Your task to perform on an android device: What's the weather like in New York? Image 0: 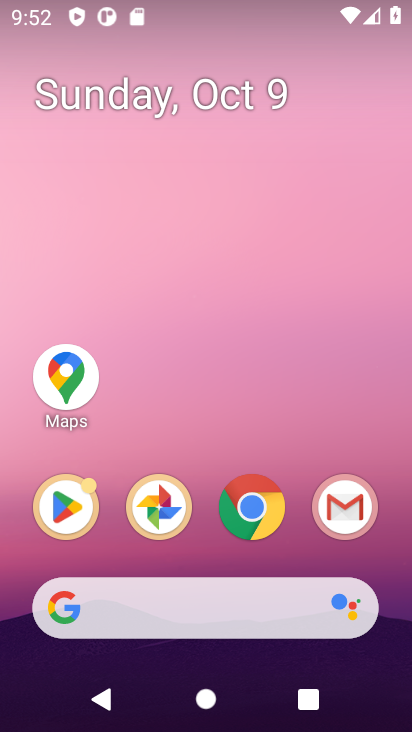
Step 0: drag from (199, 559) to (160, 37)
Your task to perform on an android device: What's the weather like in New York? Image 1: 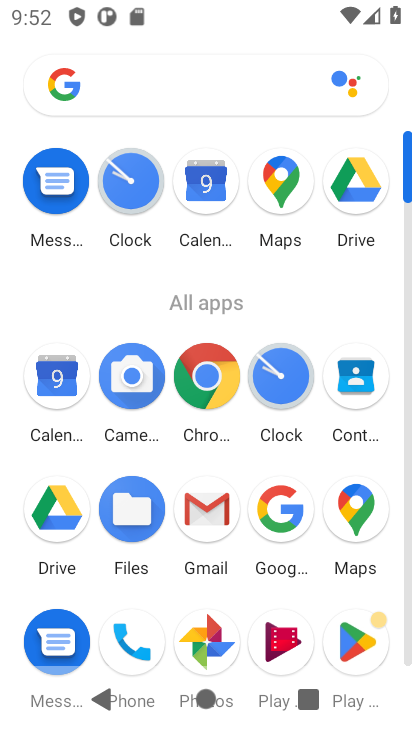
Step 1: click (205, 379)
Your task to perform on an android device: What's the weather like in New York? Image 2: 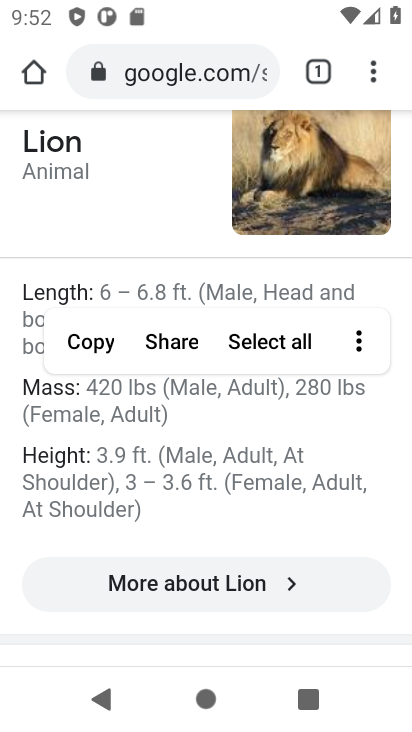
Step 2: click (148, 61)
Your task to perform on an android device: What's the weather like in New York? Image 3: 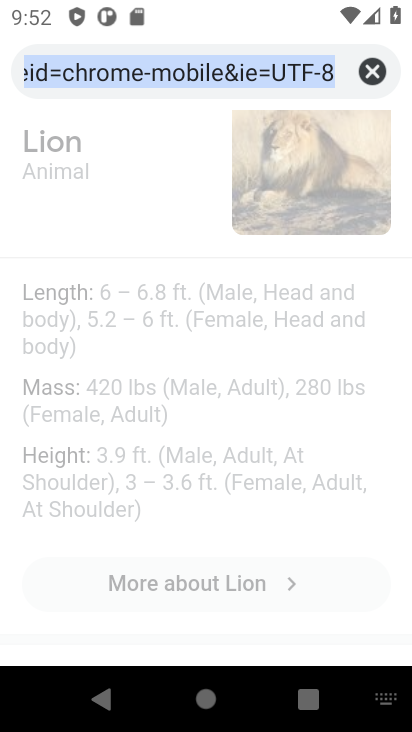
Step 3: type "What's the weather like in New York?"
Your task to perform on an android device: What's the weather like in New York? Image 4: 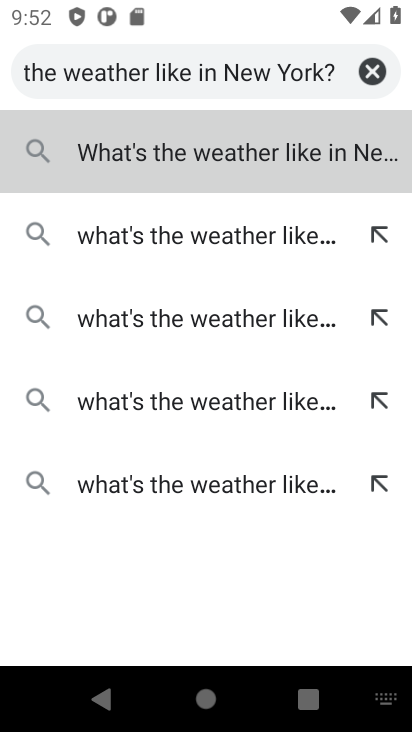
Step 4: press enter
Your task to perform on an android device: What's the weather like in New York? Image 5: 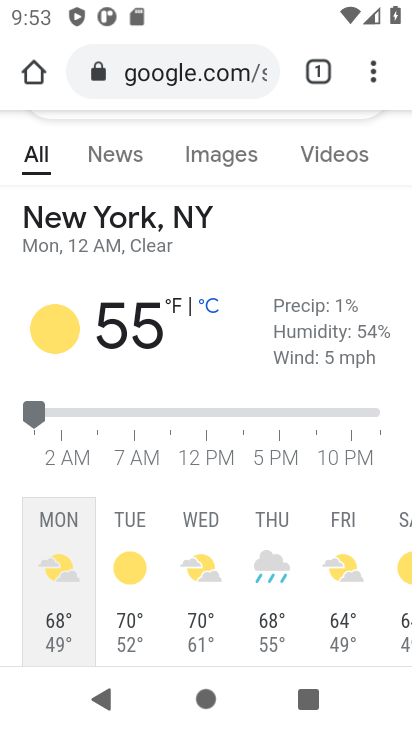
Step 5: task complete